Your task to perform on an android device: Open the phone app and click the voicemail tab. Image 0: 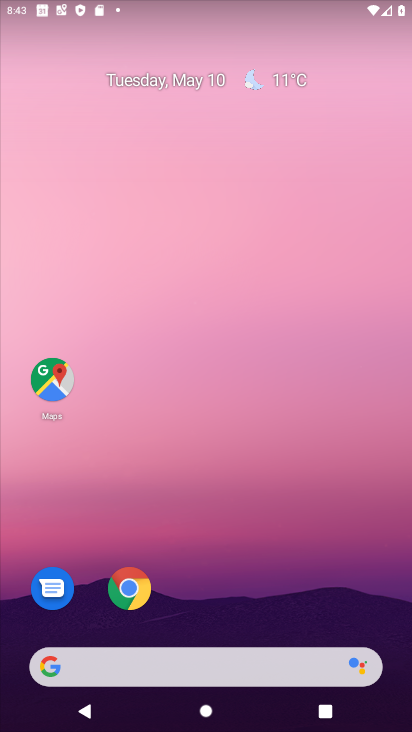
Step 0: drag from (243, 632) to (238, 218)
Your task to perform on an android device: Open the phone app and click the voicemail tab. Image 1: 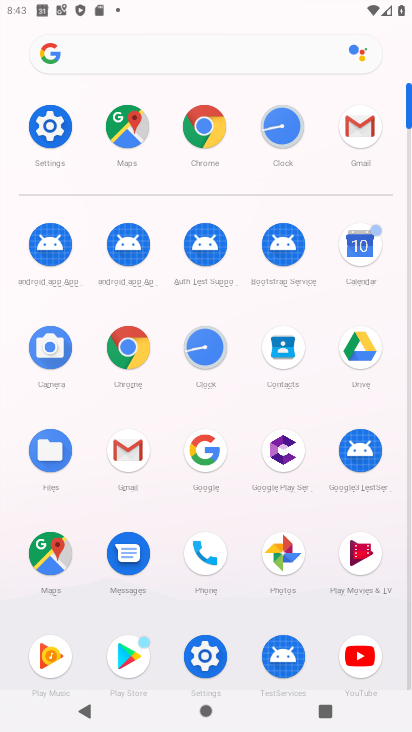
Step 1: click (219, 560)
Your task to perform on an android device: Open the phone app and click the voicemail tab. Image 2: 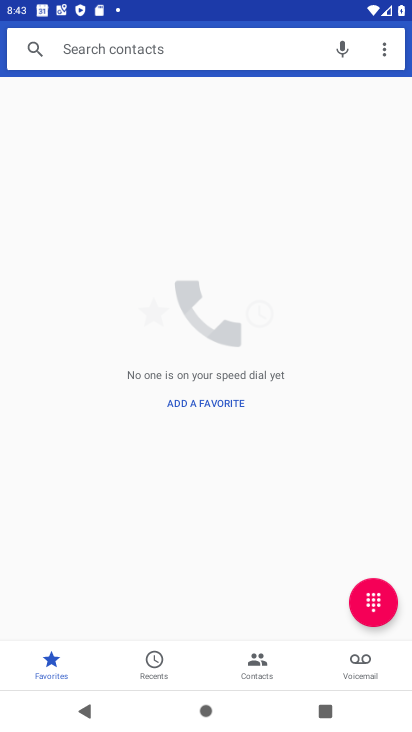
Step 2: click (363, 653)
Your task to perform on an android device: Open the phone app and click the voicemail tab. Image 3: 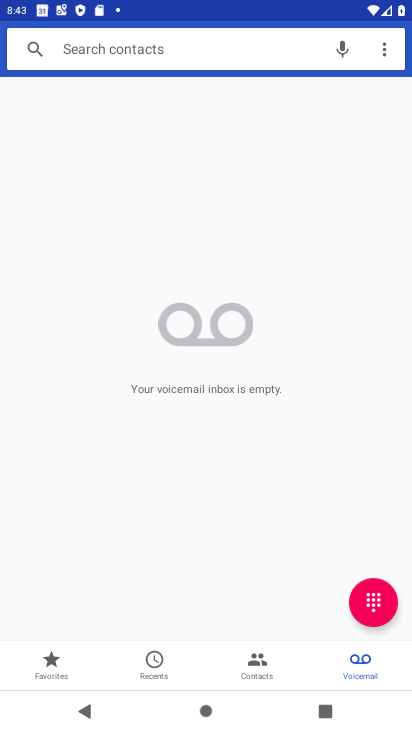
Step 3: task complete